Your task to perform on an android device: What's on my calendar today? Image 0: 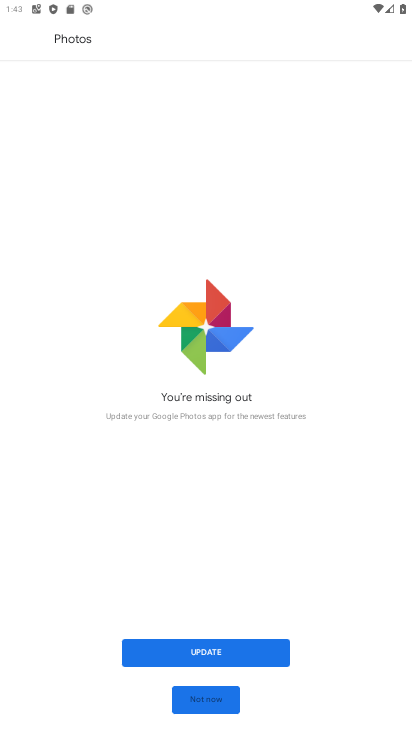
Step 0: press back button
Your task to perform on an android device: What's on my calendar today? Image 1: 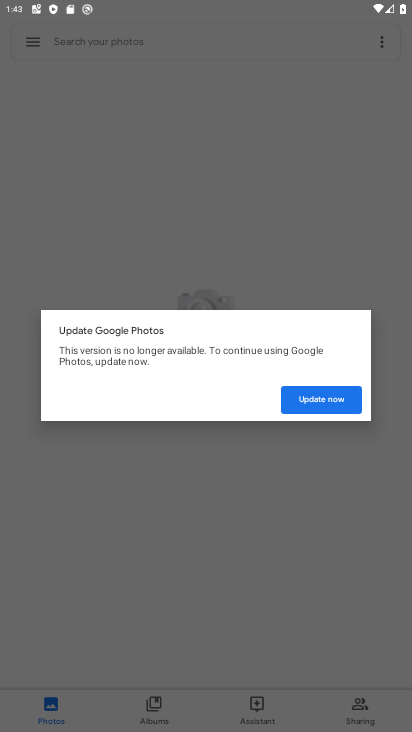
Step 1: press home button
Your task to perform on an android device: What's on my calendar today? Image 2: 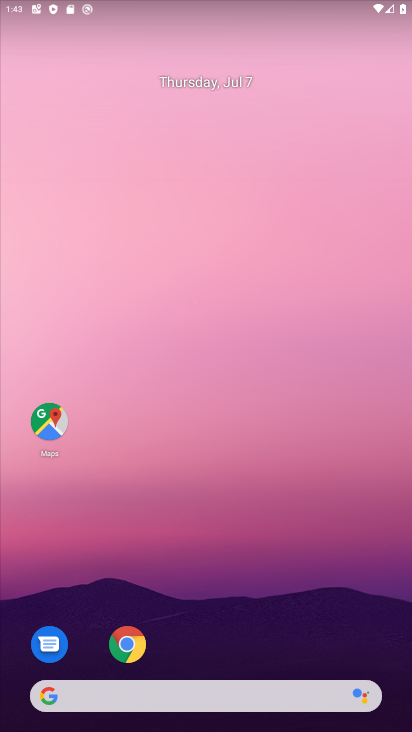
Step 2: drag from (201, 704) to (208, 217)
Your task to perform on an android device: What's on my calendar today? Image 3: 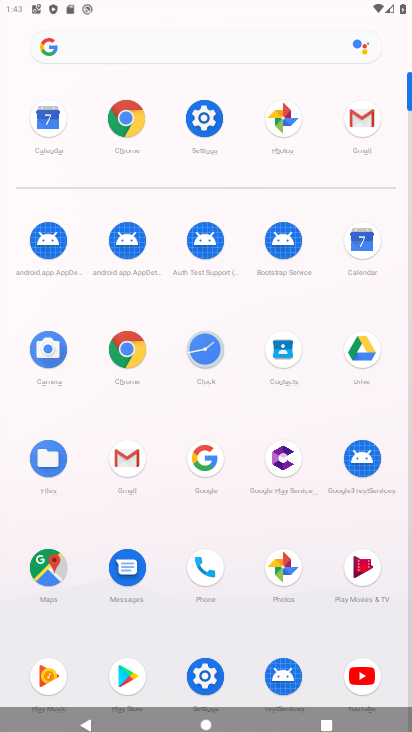
Step 3: click (370, 241)
Your task to perform on an android device: What's on my calendar today? Image 4: 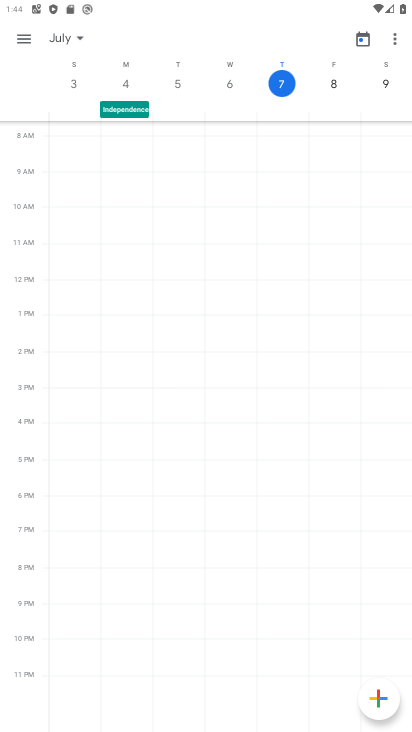
Step 4: click (285, 83)
Your task to perform on an android device: What's on my calendar today? Image 5: 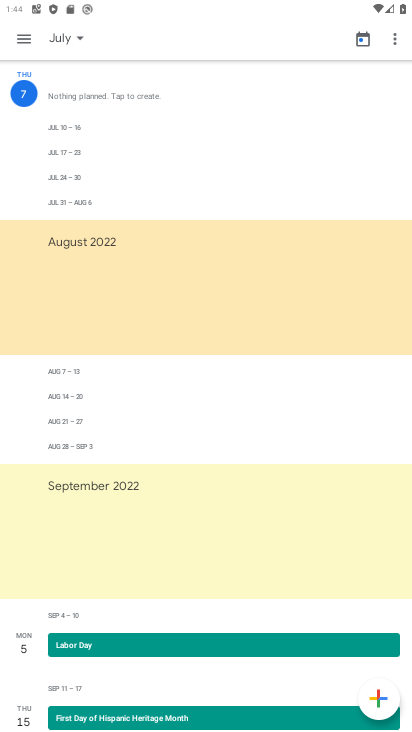
Step 5: task complete